Your task to perform on an android device: What's on my calendar tomorrow? Image 0: 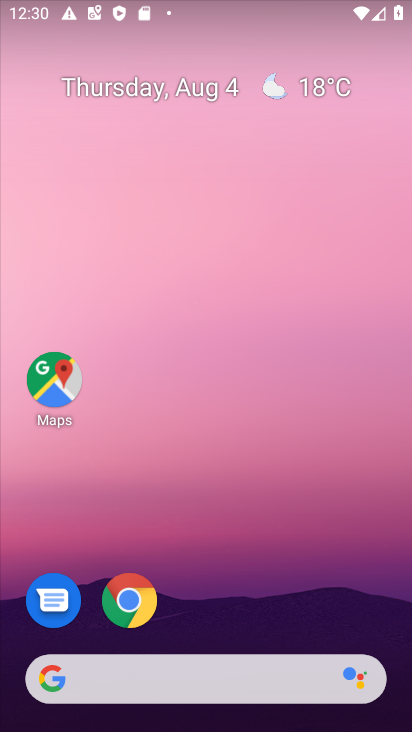
Step 0: drag from (159, 648) to (317, 73)
Your task to perform on an android device: What's on my calendar tomorrow? Image 1: 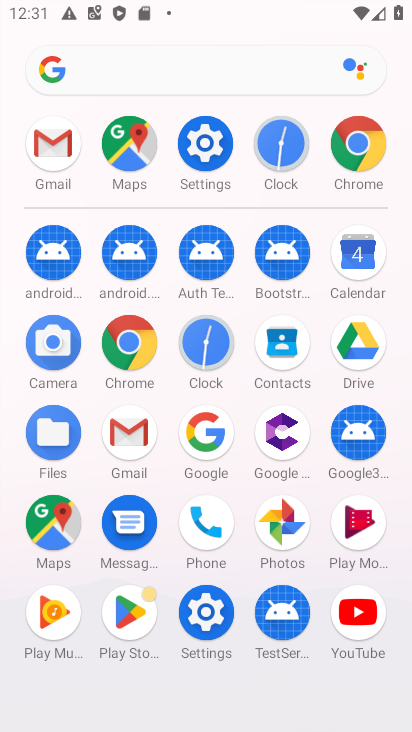
Step 1: click (357, 262)
Your task to perform on an android device: What's on my calendar tomorrow? Image 2: 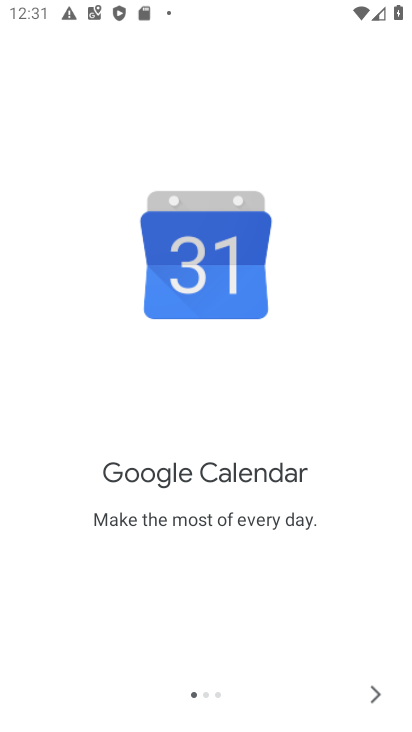
Step 2: click (377, 691)
Your task to perform on an android device: What's on my calendar tomorrow? Image 3: 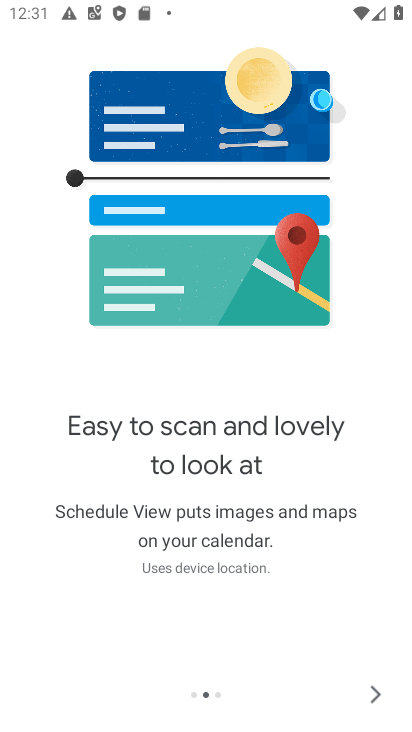
Step 3: click (377, 689)
Your task to perform on an android device: What's on my calendar tomorrow? Image 4: 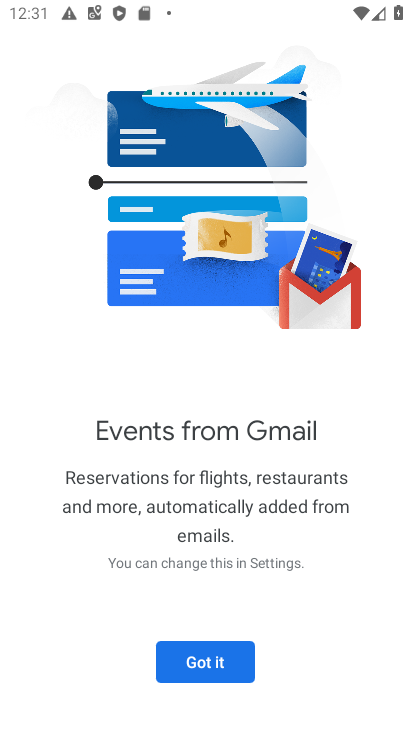
Step 4: click (218, 671)
Your task to perform on an android device: What's on my calendar tomorrow? Image 5: 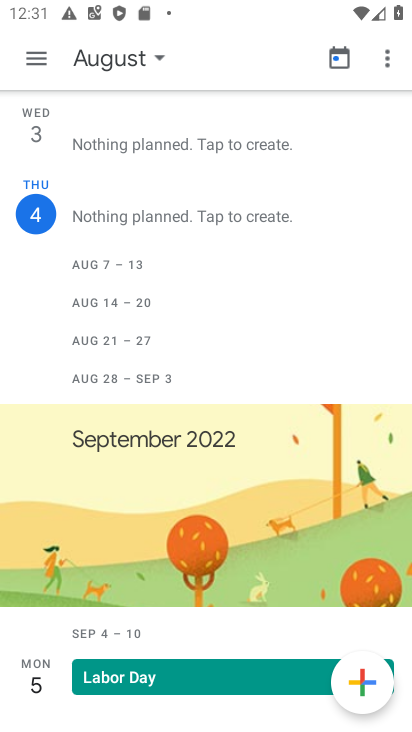
Step 5: click (123, 61)
Your task to perform on an android device: What's on my calendar tomorrow? Image 6: 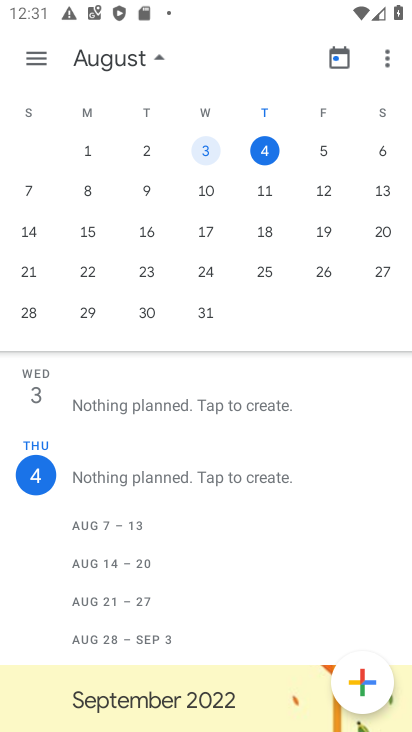
Step 6: click (262, 153)
Your task to perform on an android device: What's on my calendar tomorrow? Image 7: 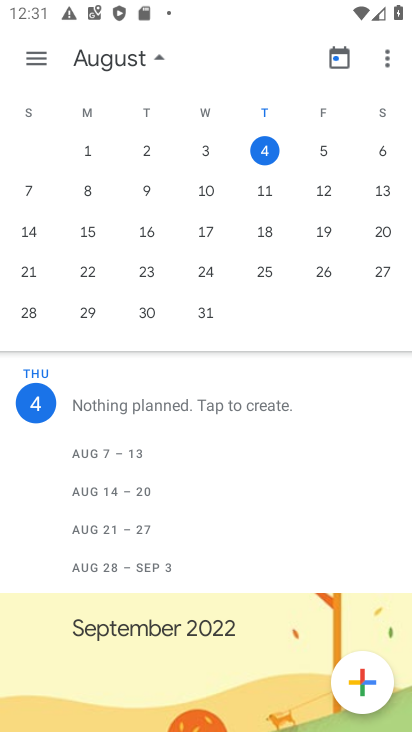
Step 7: click (327, 155)
Your task to perform on an android device: What's on my calendar tomorrow? Image 8: 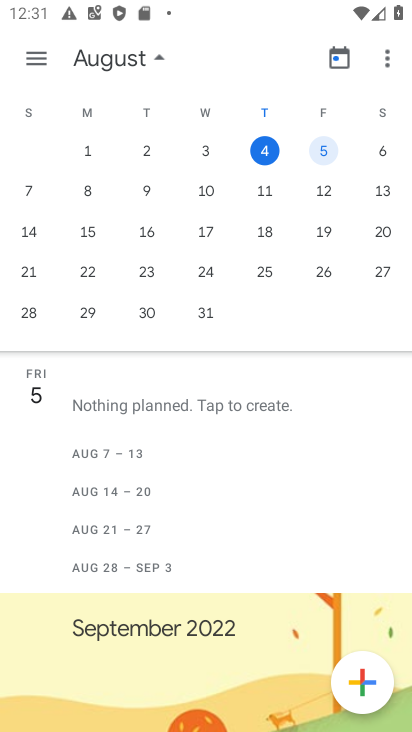
Step 8: click (50, 61)
Your task to perform on an android device: What's on my calendar tomorrow? Image 9: 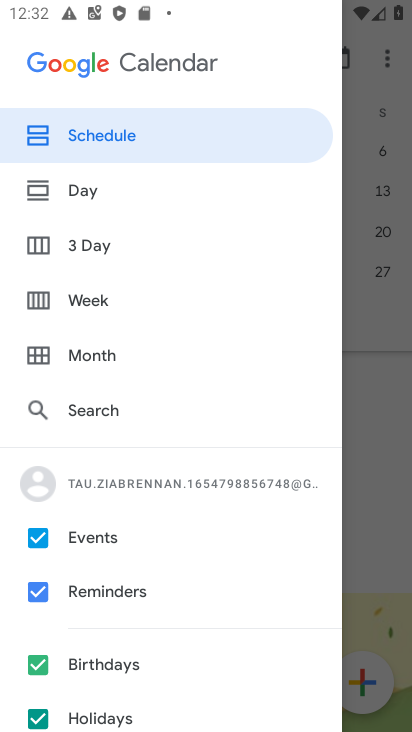
Step 9: click (89, 187)
Your task to perform on an android device: What's on my calendar tomorrow? Image 10: 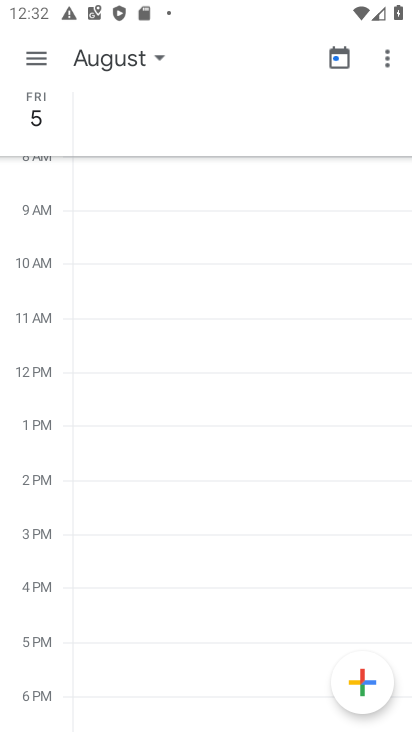
Step 10: click (41, 61)
Your task to perform on an android device: What's on my calendar tomorrow? Image 11: 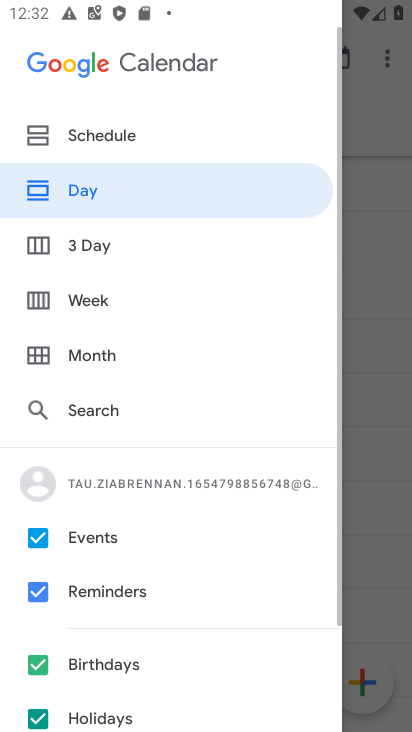
Step 11: click (122, 131)
Your task to perform on an android device: What's on my calendar tomorrow? Image 12: 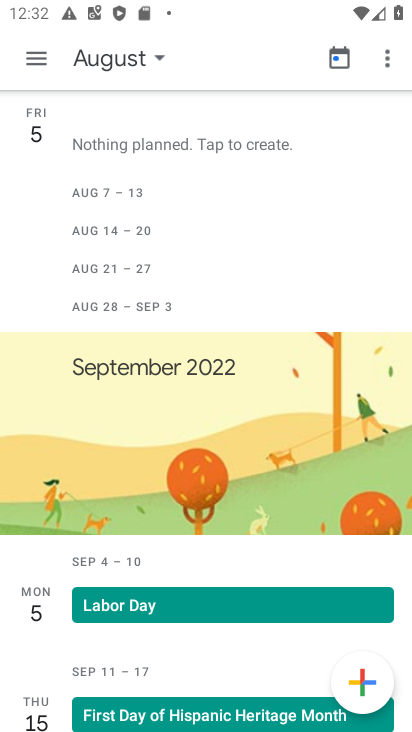
Step 12: task complete